Your task to perform on an android device: Add "macbook pro" to the cart on target.com, then select checkout. Image 0: 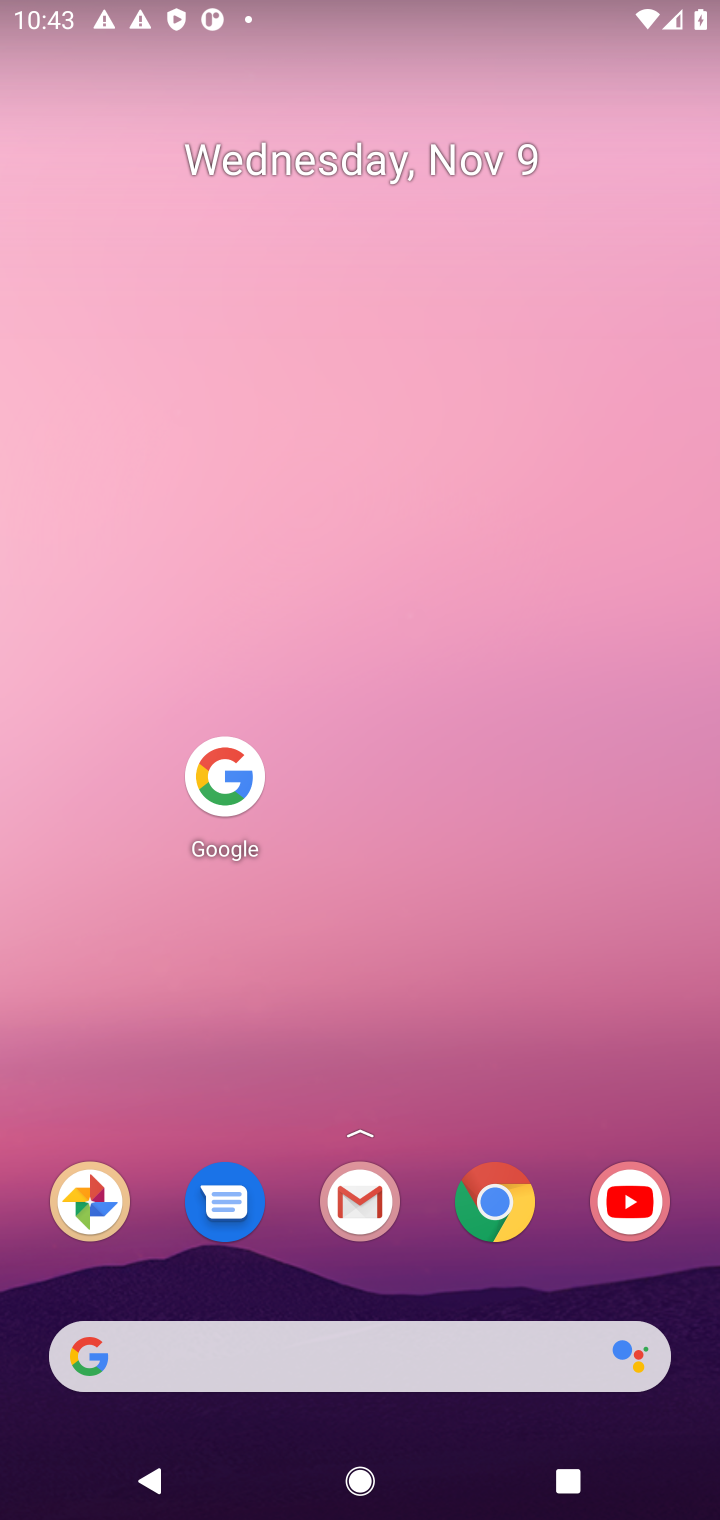
Step 0: click (237, 780)
Your task to perform on an android device: Add "macbook pro" to the cart on target.com, then select checkout. Image 1: 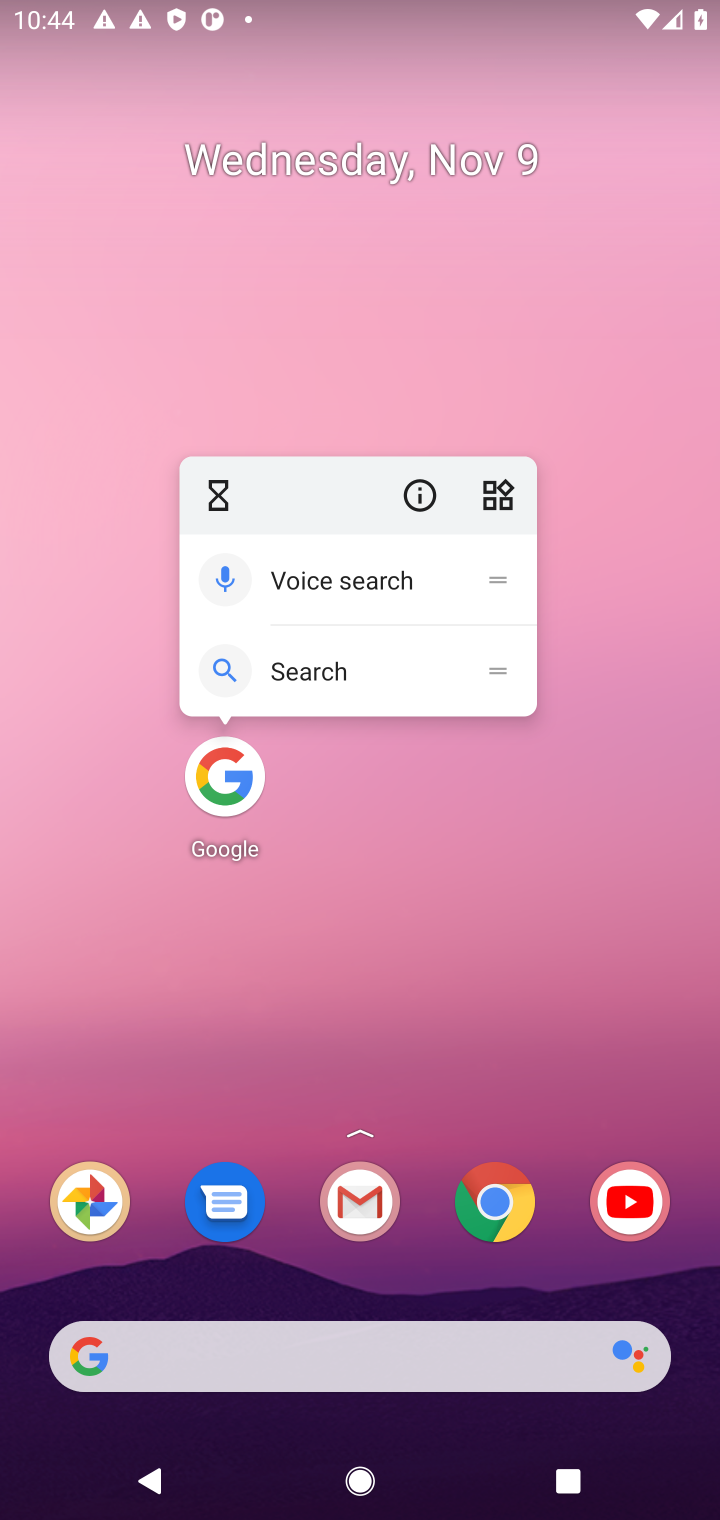
Step 1: click (217, 791)
Your task to perform on an android device: Add "macbook pro" to the cart on target.com, then select checkout. Image 2: 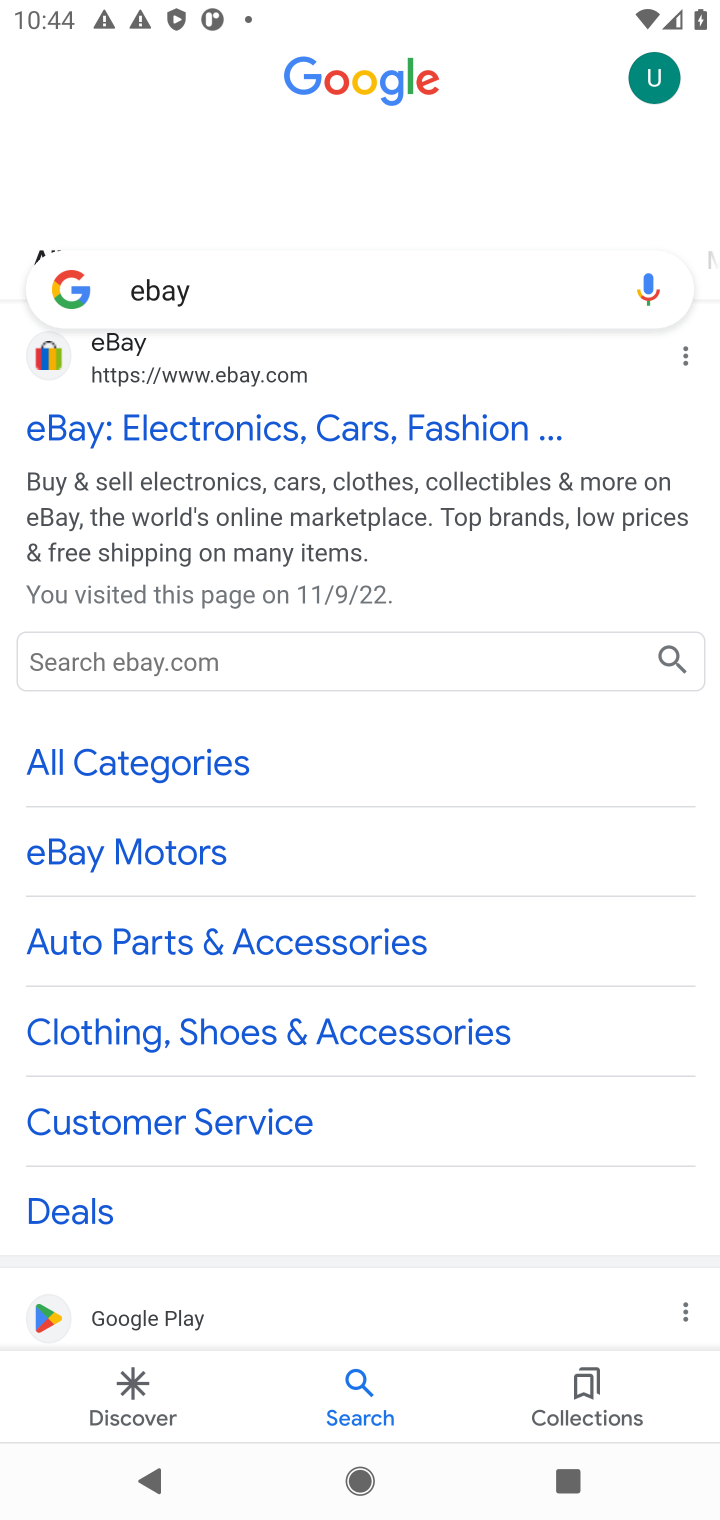
Step 2: click (337, 280)
Your task to perform on an android device: Add "macbook pro" to the cart on target.com, then select checkout. Image 3: 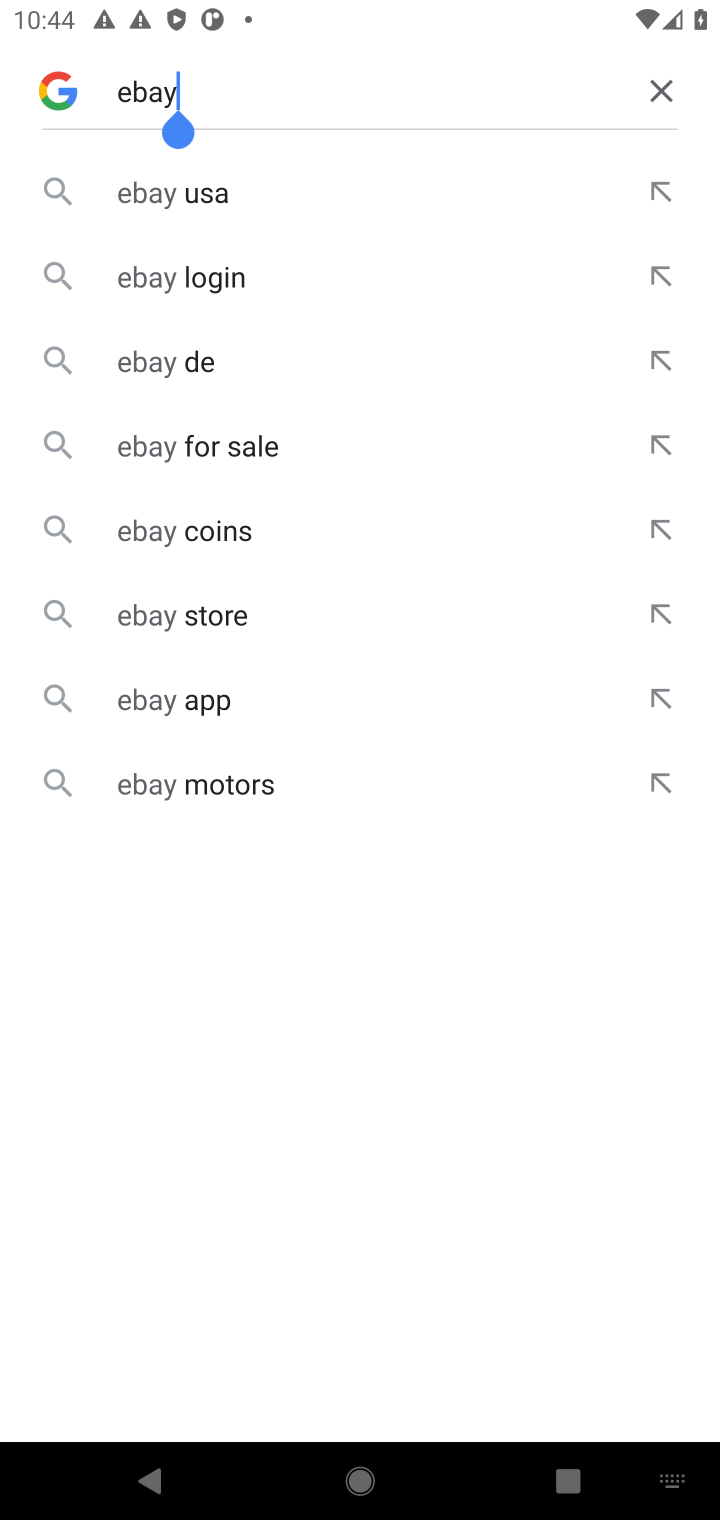
Step 3: click (660, 84)
Your task to perform on an android device: Add "macbook pro" to the cart on target.com, then select checkout. Image 4: 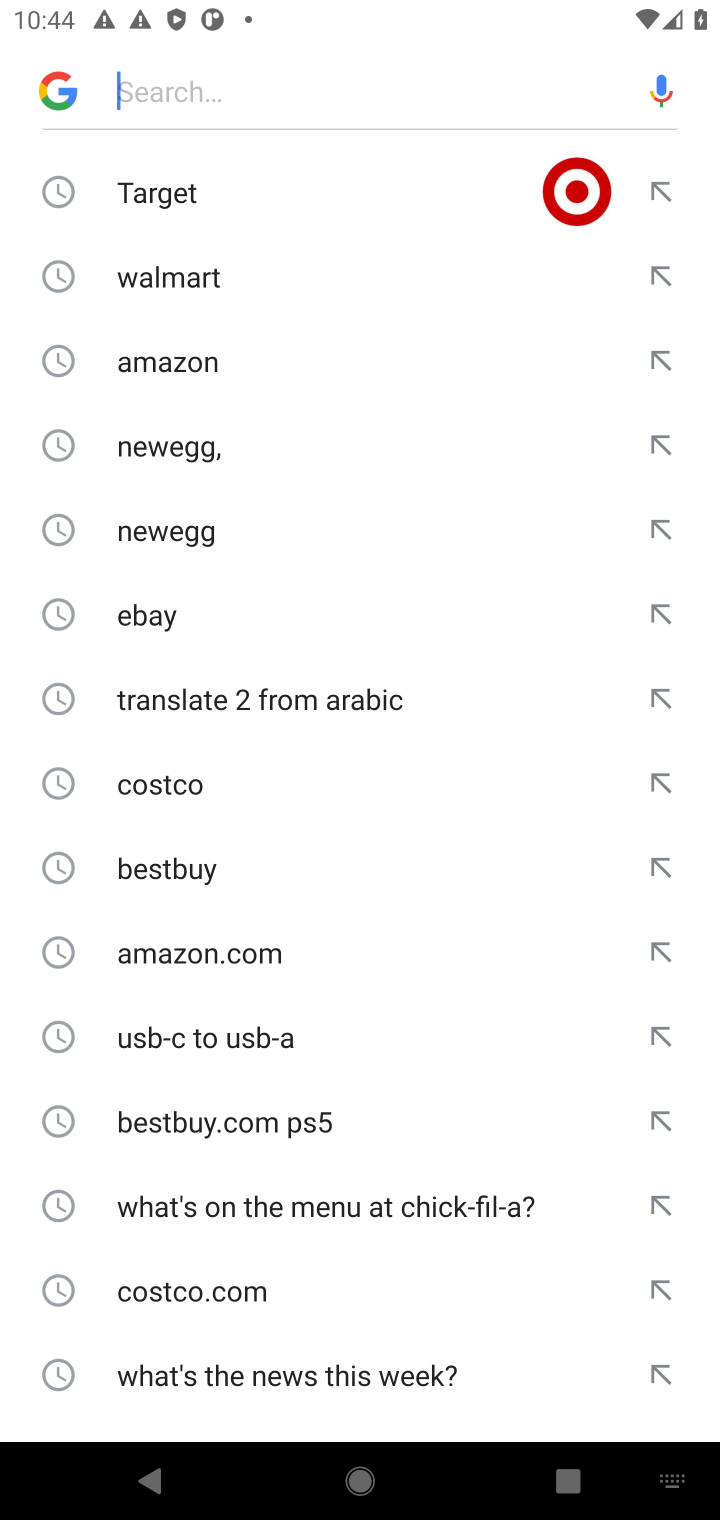
Step 4: click (148, 192)
Your task to perform on an android device: Add "macbook pro" to the cart on target.com, then select checkout. Image 5: 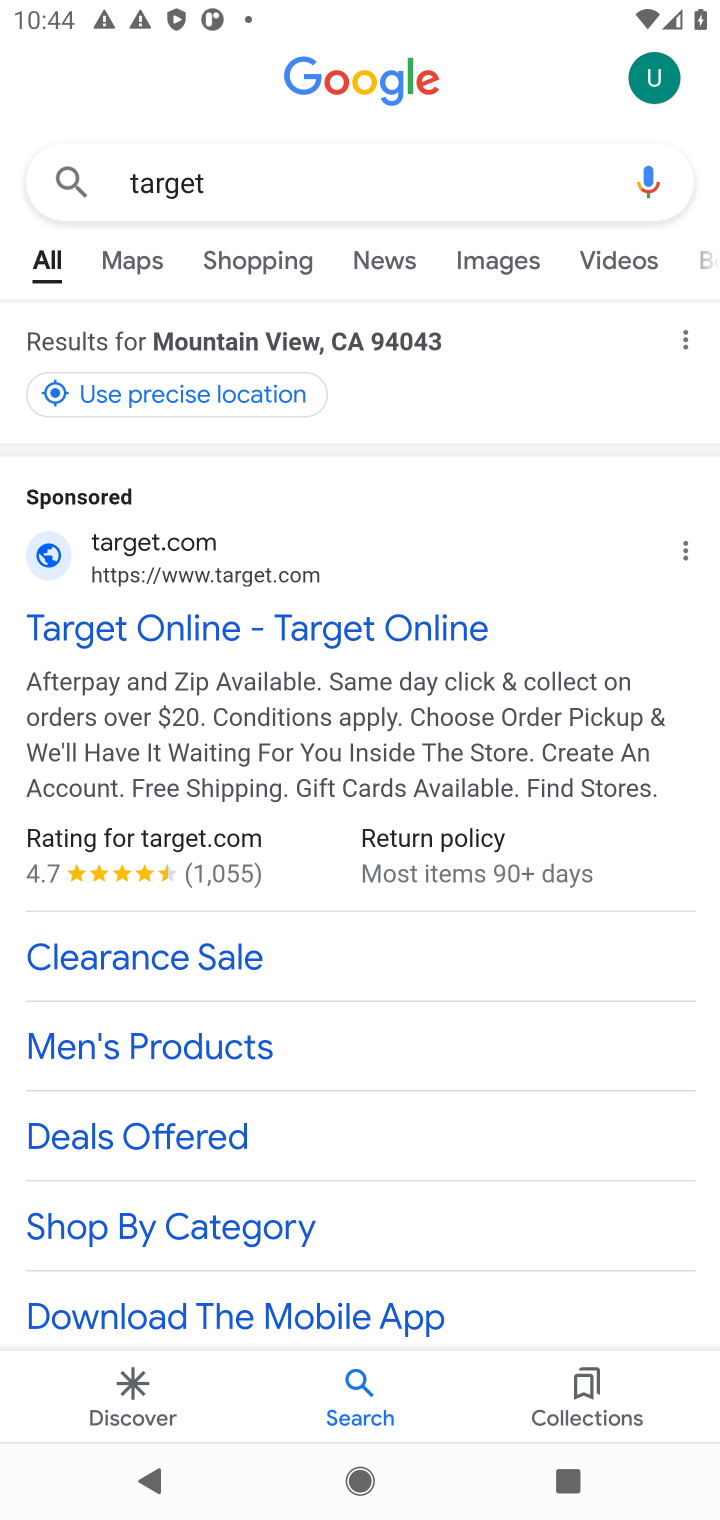
Step 5: click (186, 639)
Your task to perform on an android device: Add "macbook pro" to the cart on target.com, then select checkout. Image 6: 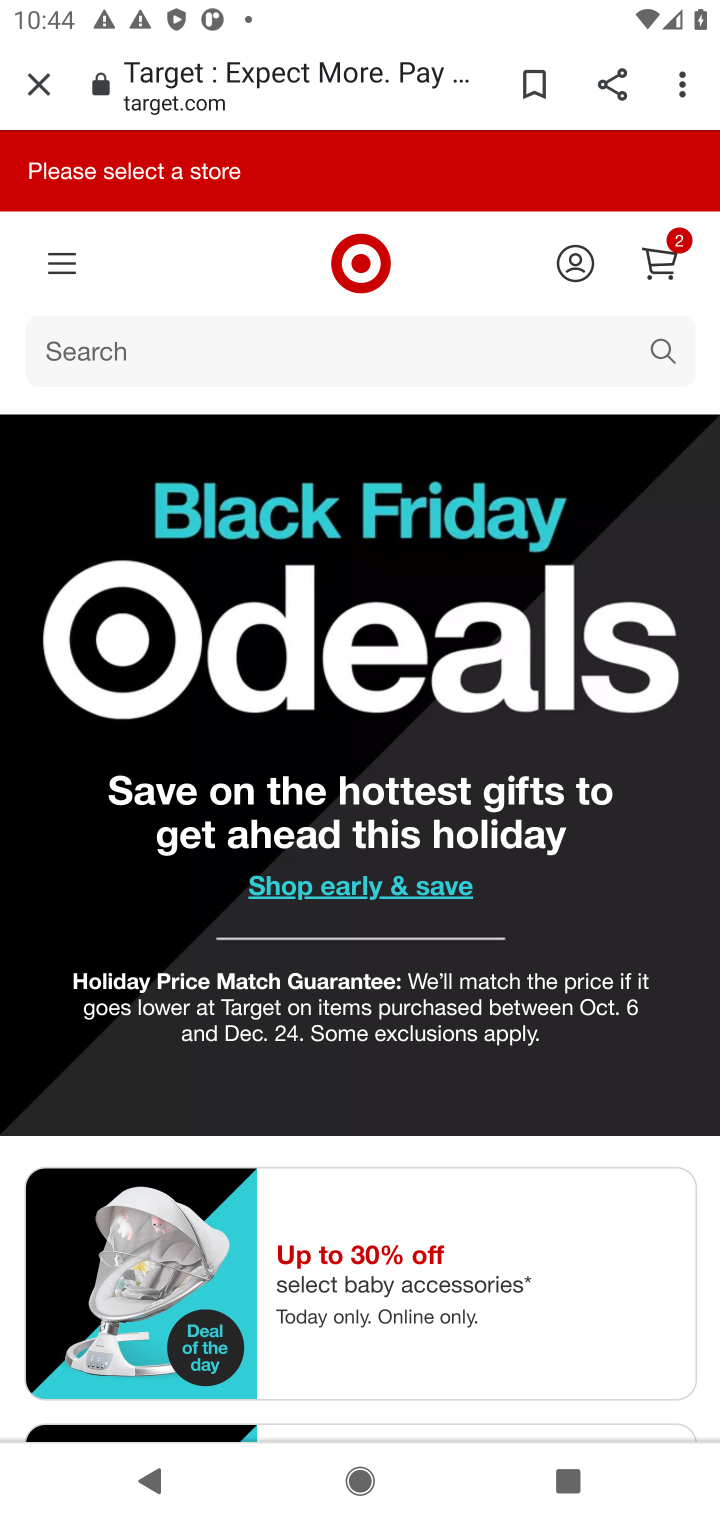
Step 6: click (183, 352)
Your task to perform on an android device: Add "macbook pro" to the cart on target.com, then select checkout. Image 7: 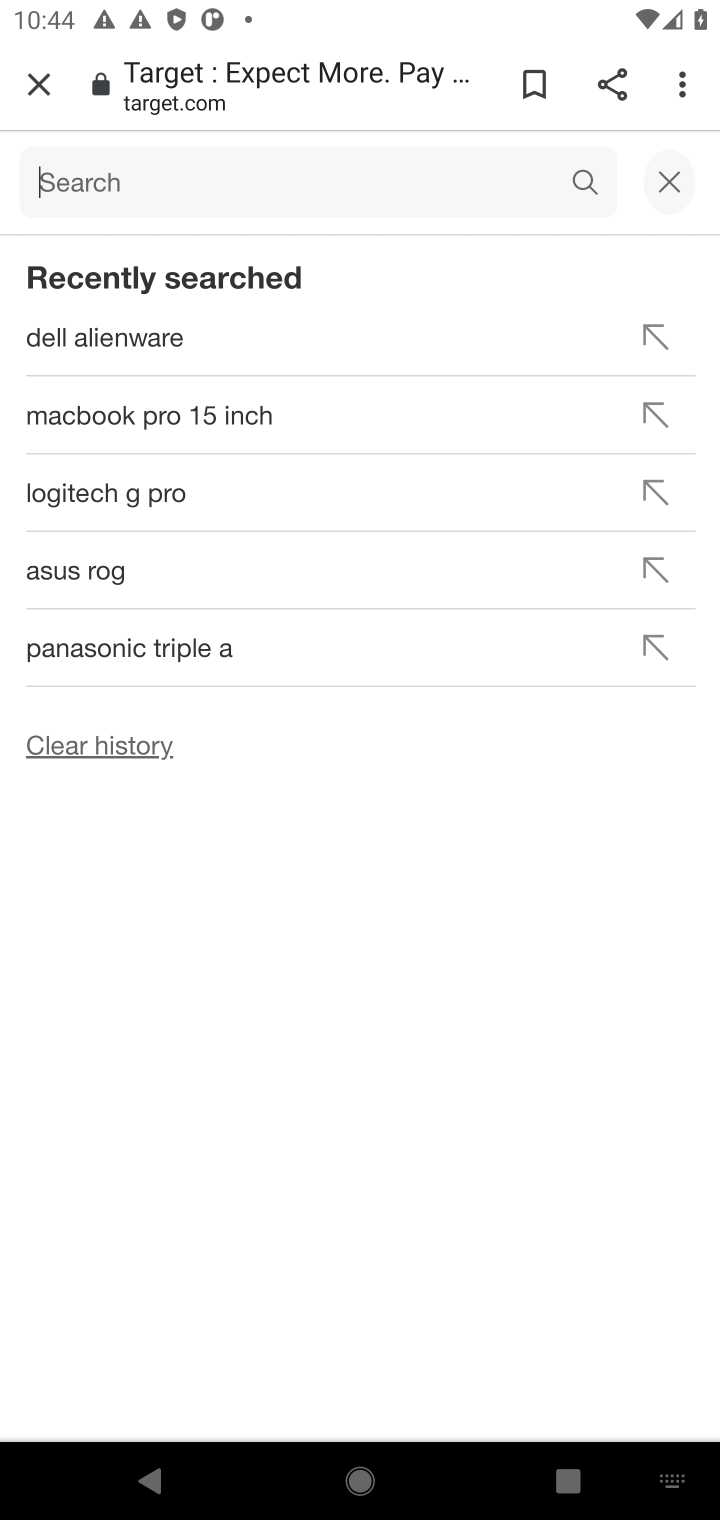
Step 7: type "macbook pro"
Your task to perform on an android device: Add "macbook pro" to the cart on target.com, then select checkout. Image 8: 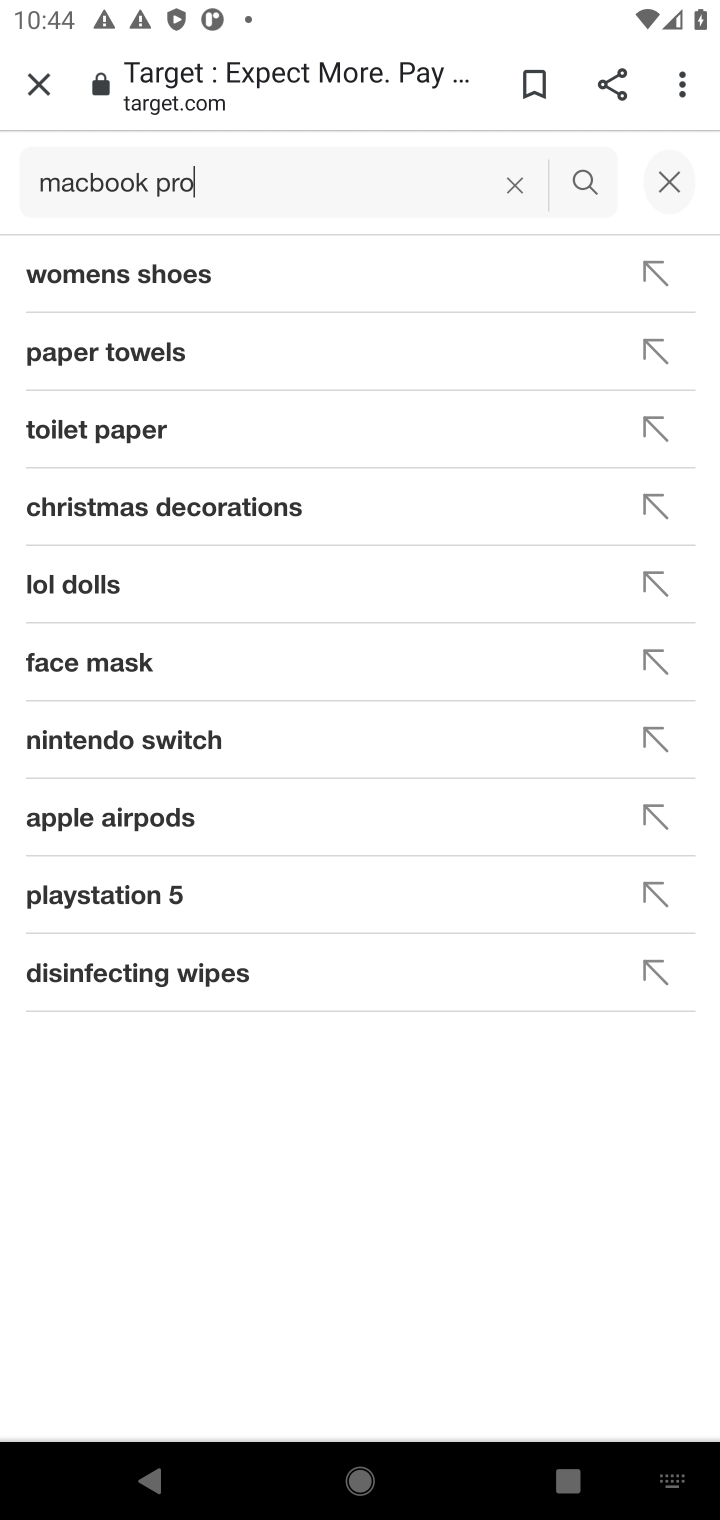
Step 8: press enter
Your task to perform on an android device: Add "macbook pro" to the cart on target.com, then select checkout. Image 9: 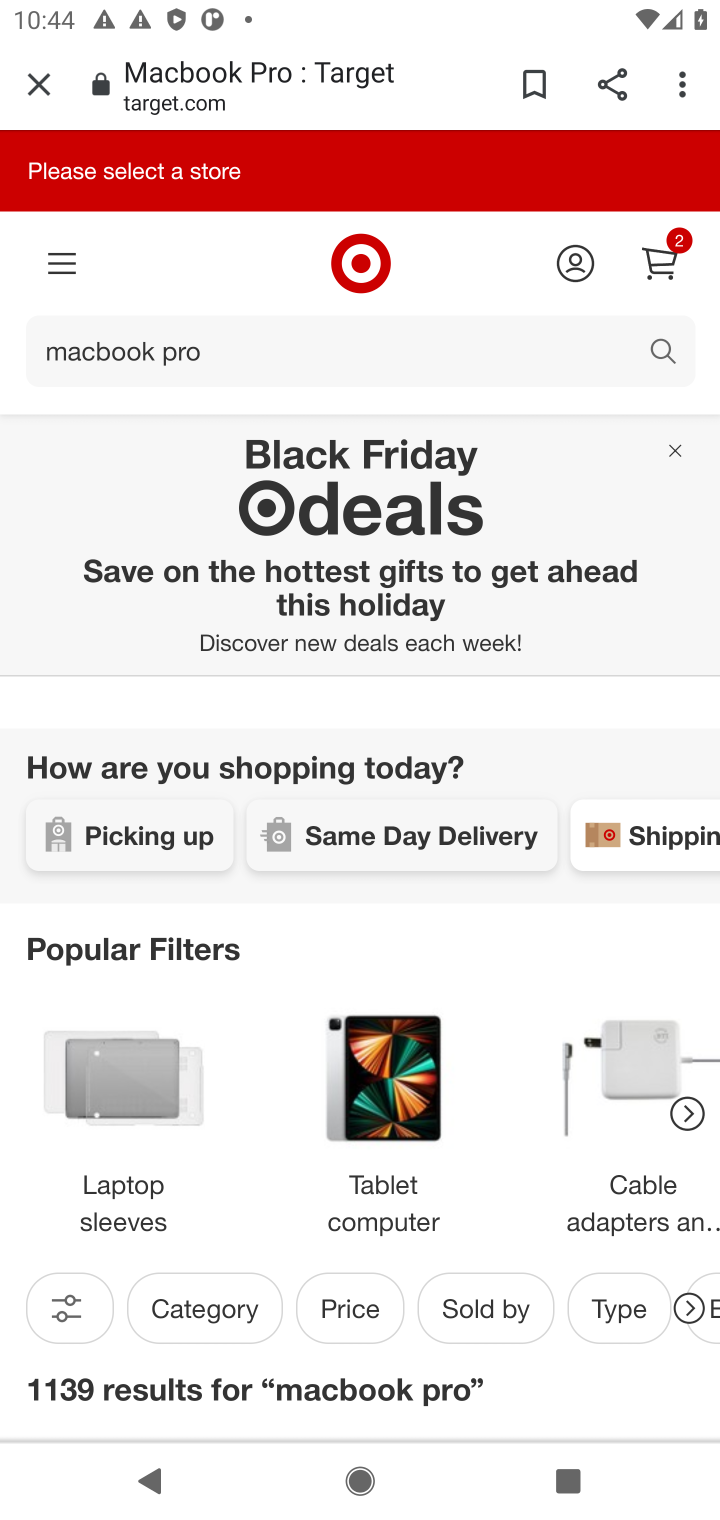
Step 9: task complete